Your task to perform on an android device: turn on data saver in the chrome app Image 0: 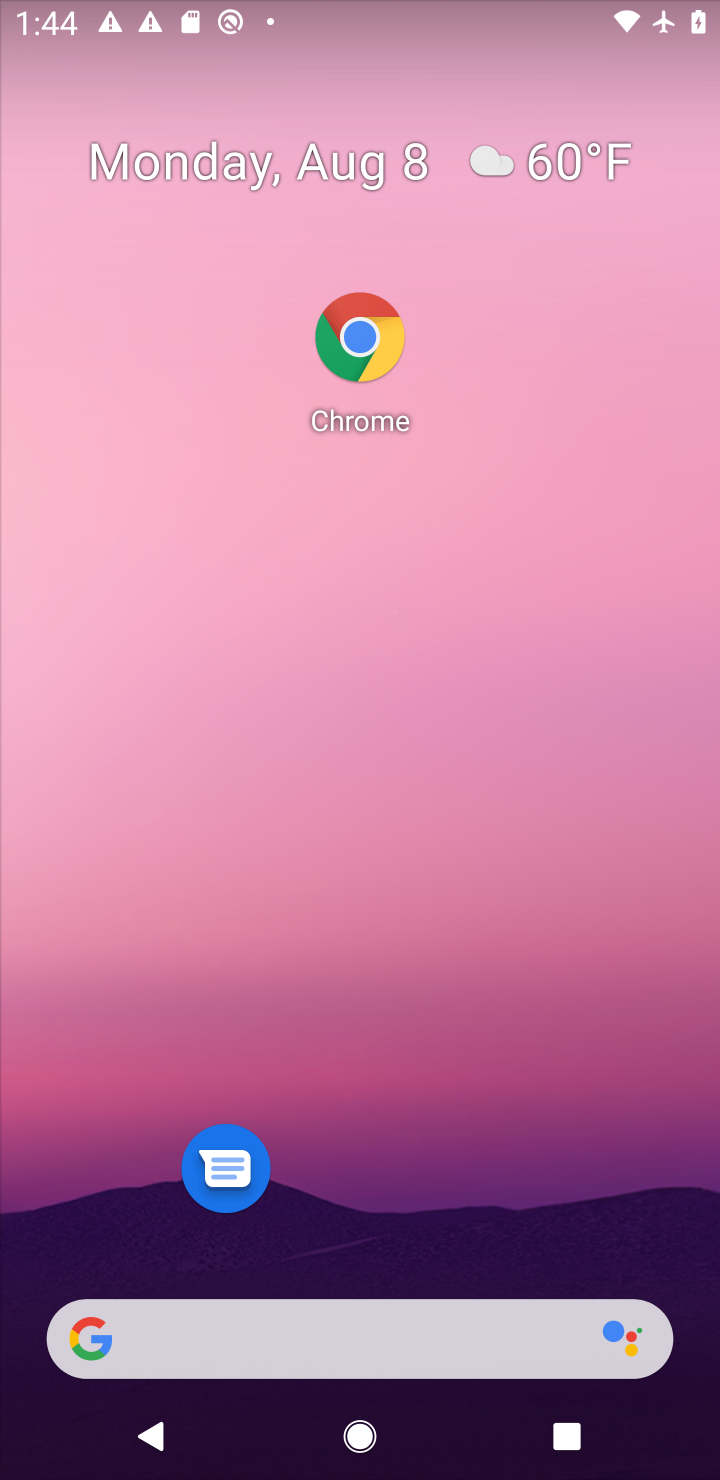
Step 0: drag from (446, 1257) to (446, 290)
Your task to perform on an android device: turn on data saver in the chrome app Image 1: 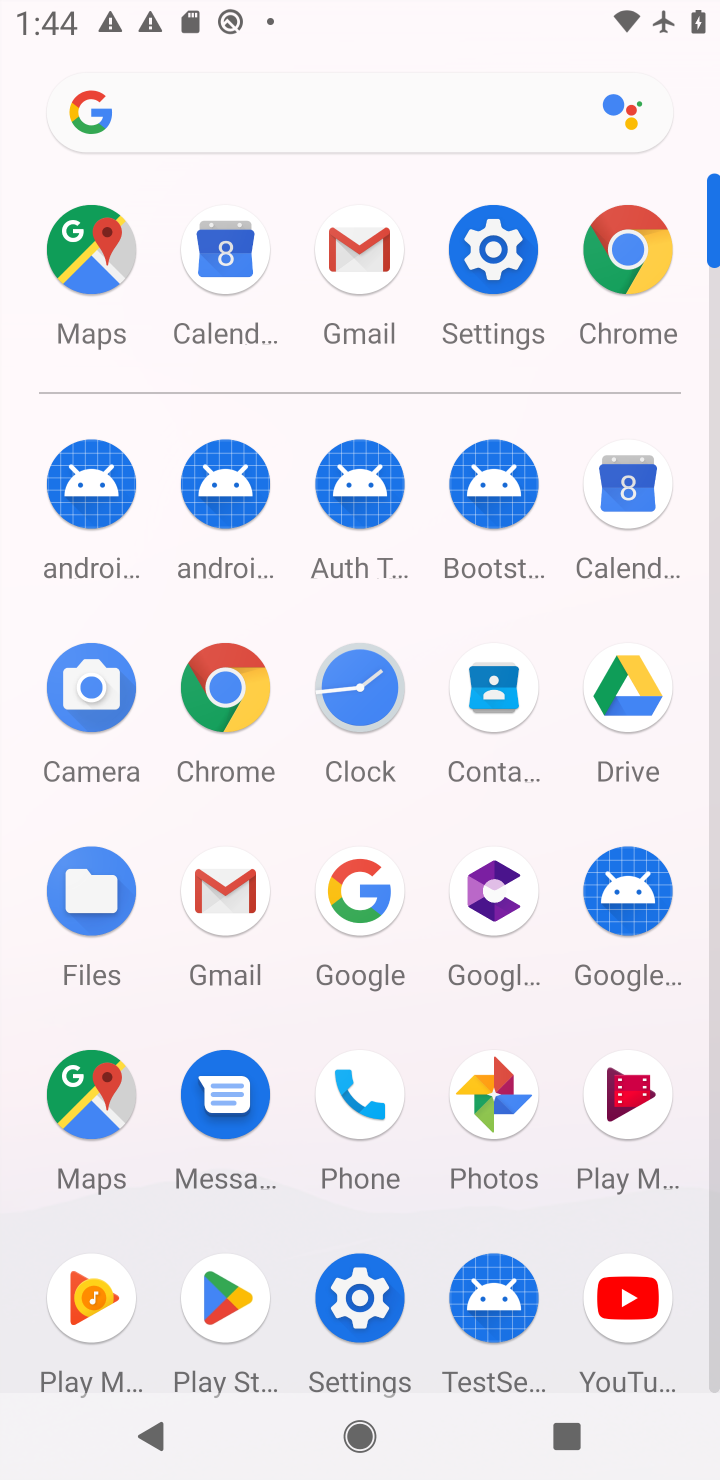
Step 1: click (607, 260)
Your task to perform on an android device: turn on data saver in the chrome app Image 2: 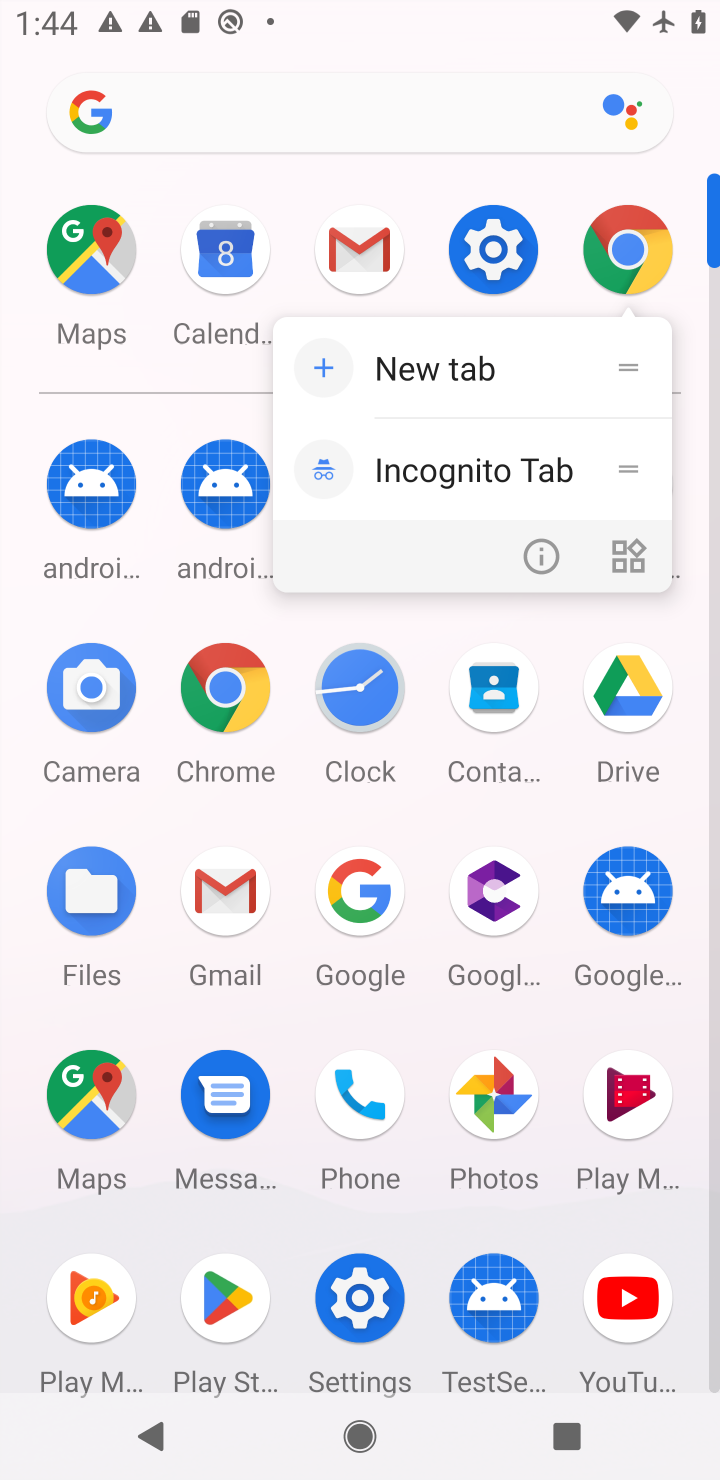
Step 2: click (646, 223)
Your task to perform on an android device: turn on data saver in the chrome app Image 3: 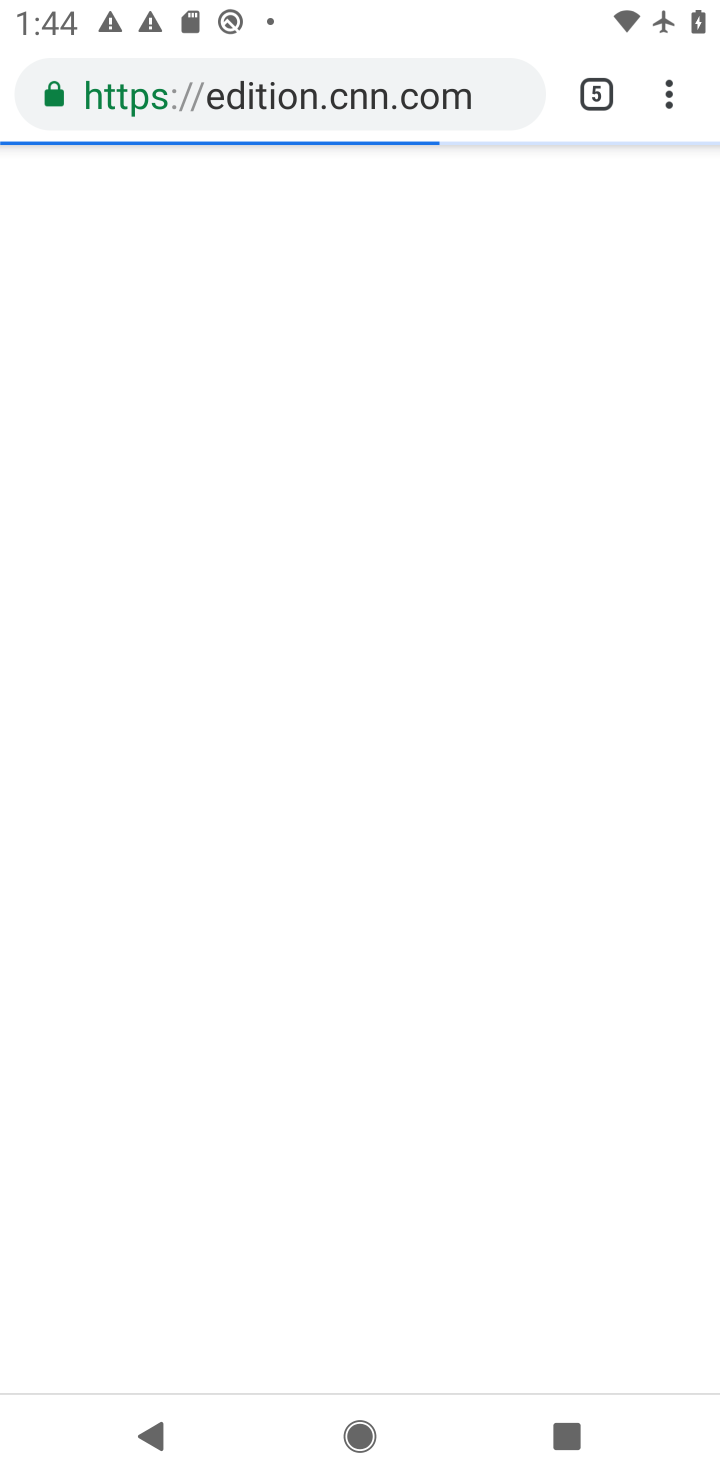
Step 3: click (694, 122)
Your task to perform on an android device: turn on data saver in the chrome app Image 4: 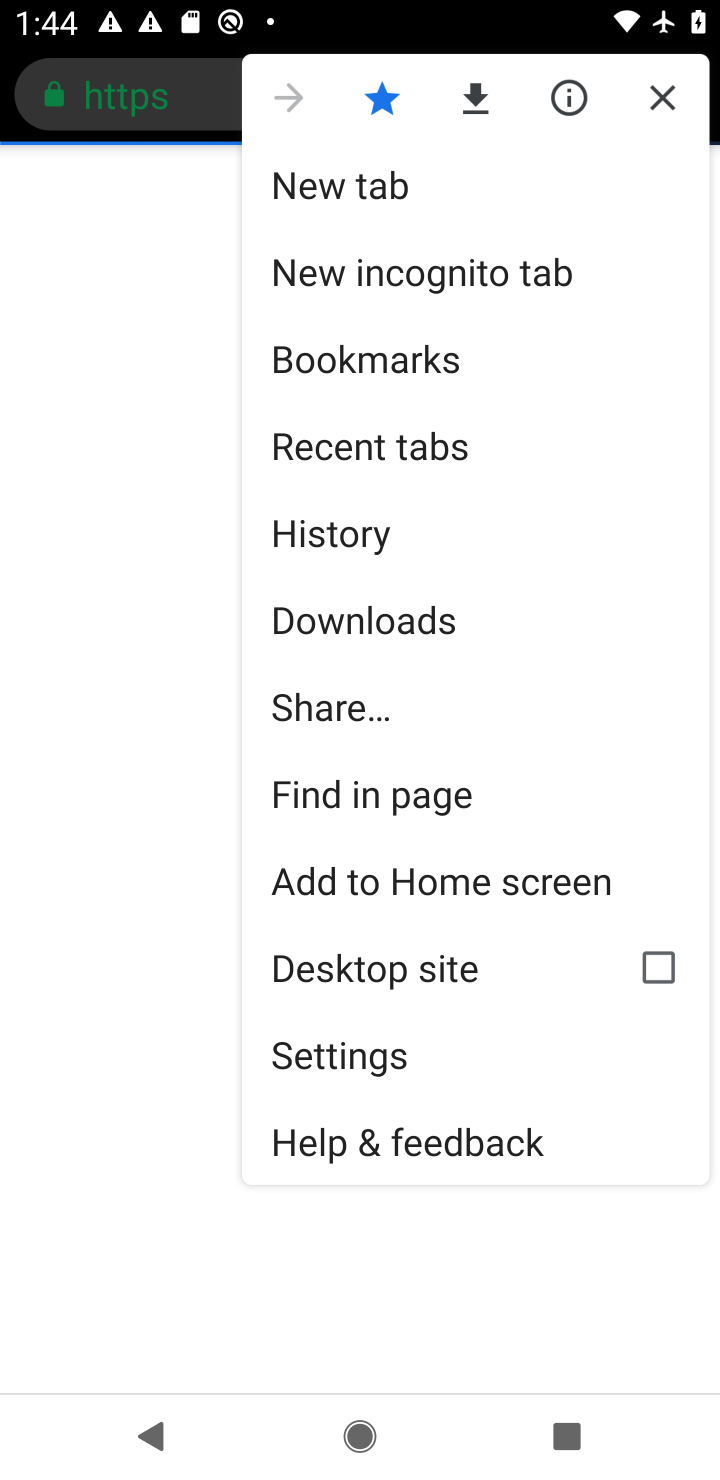
Step 4: click (455, 1050)
Your task to perform on an android device: turn on data saver in the chrome app Image 5: 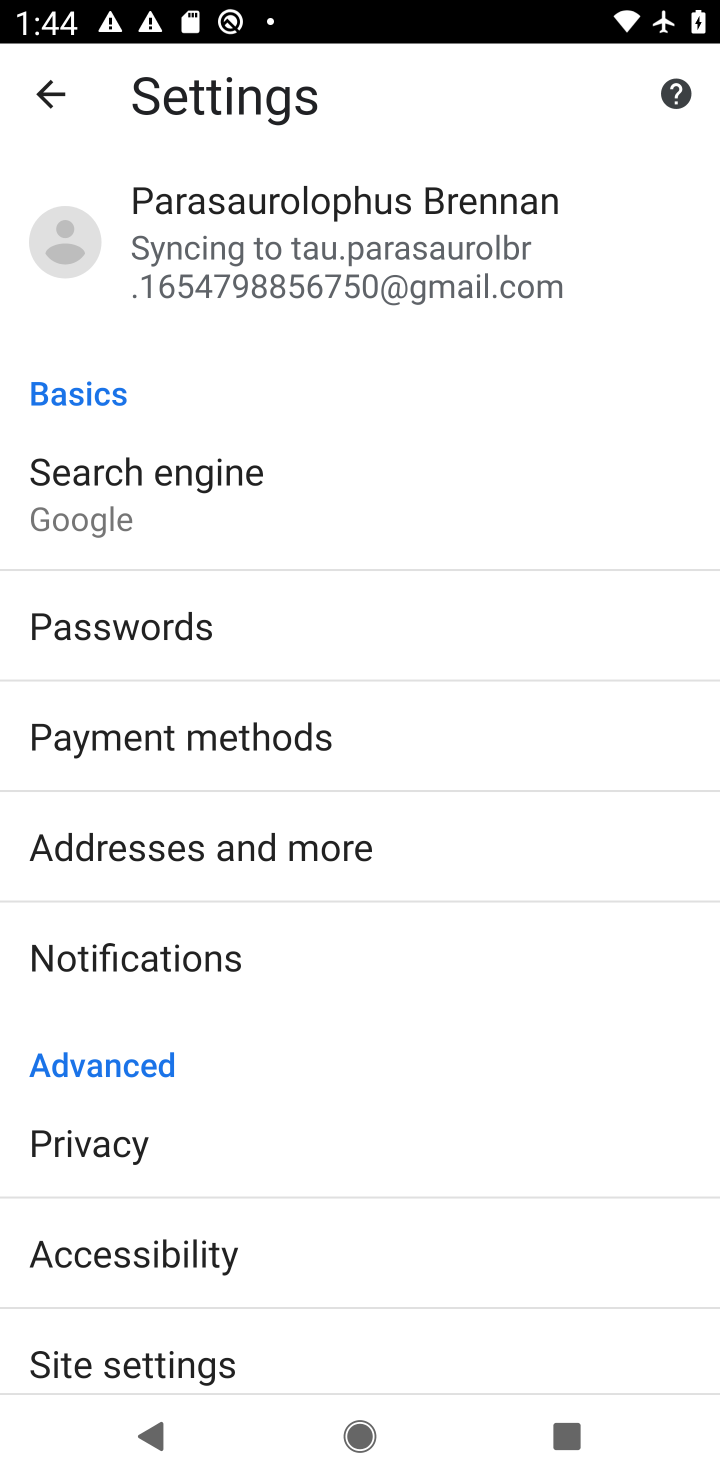
Step 5: drag from (303, 1222) to (207, 49)
Your task to perform on an android device: turn on data saver in the chrome app Image 6: 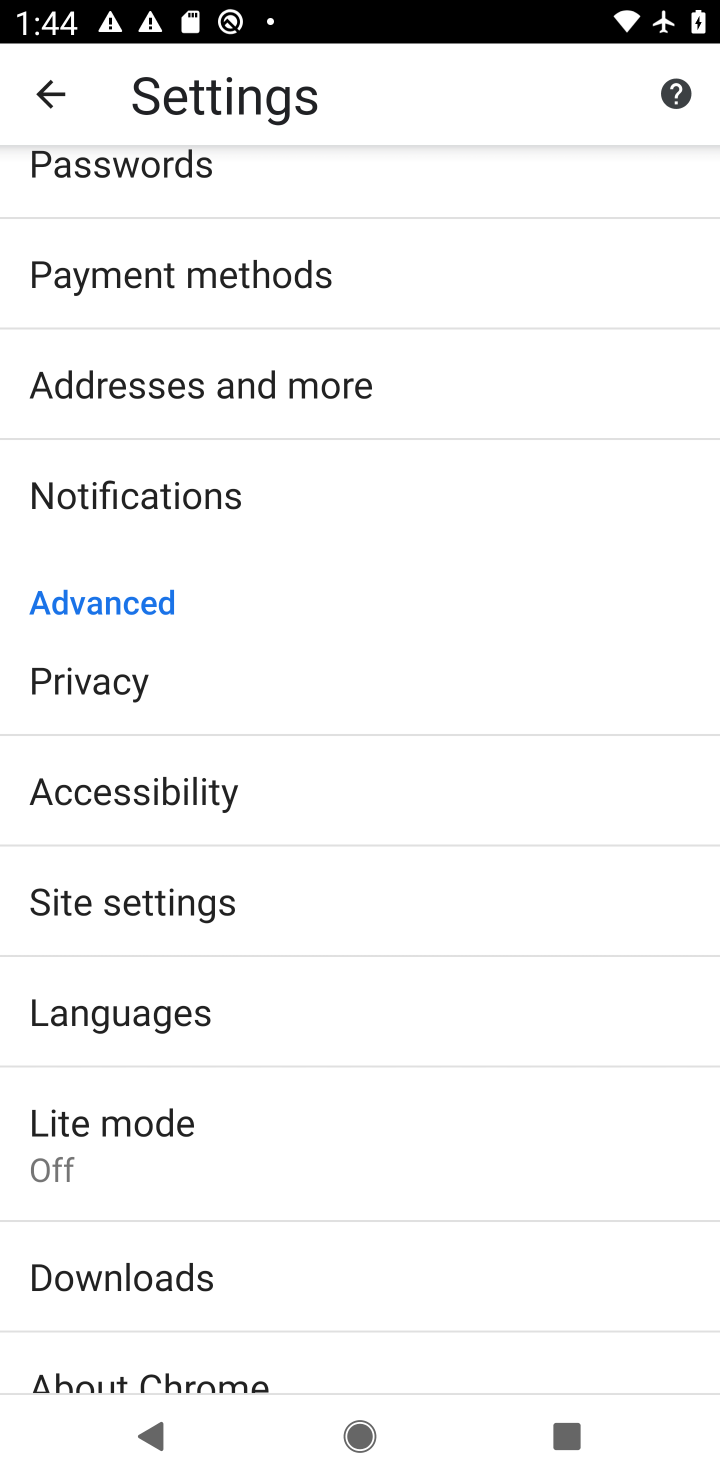
Step 6: click (306, 1165)
Your task to perform on an android device: turn on data saver in the chrome app Image 7: 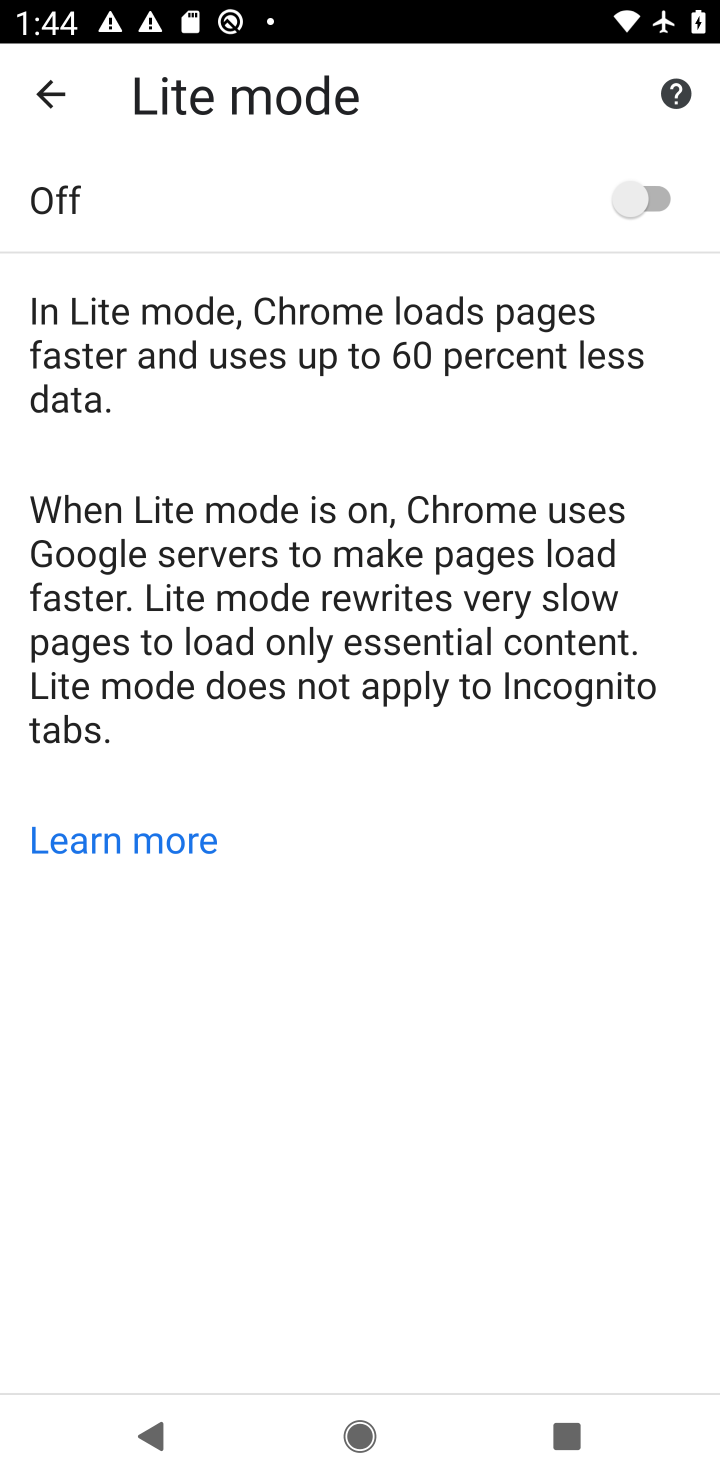
Step 7: click (618, 216)
Your task to perform on an android device: turn on data saver in the chrome app Image 8: 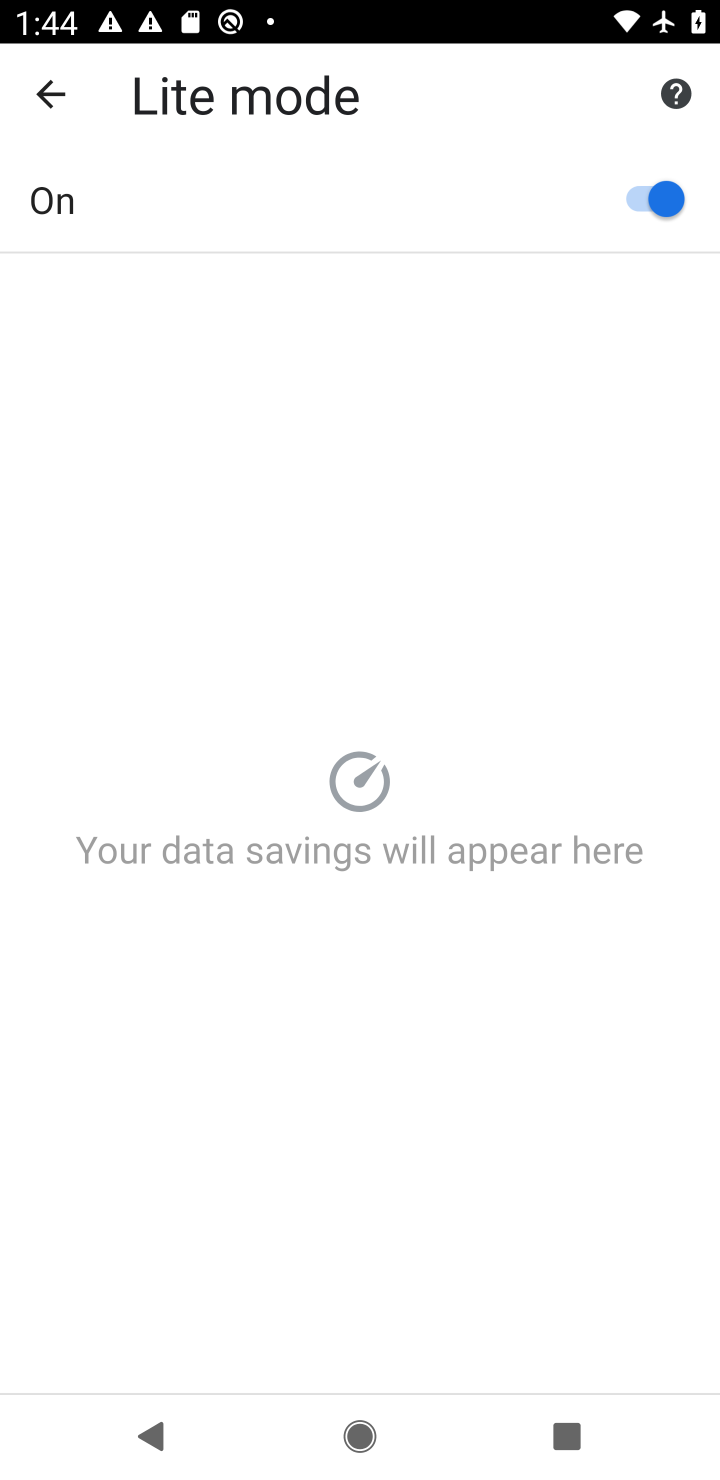
Step 8: task complete